Your task to perform on an android device: Open the phone app and click the voicemail tab. Image 0: 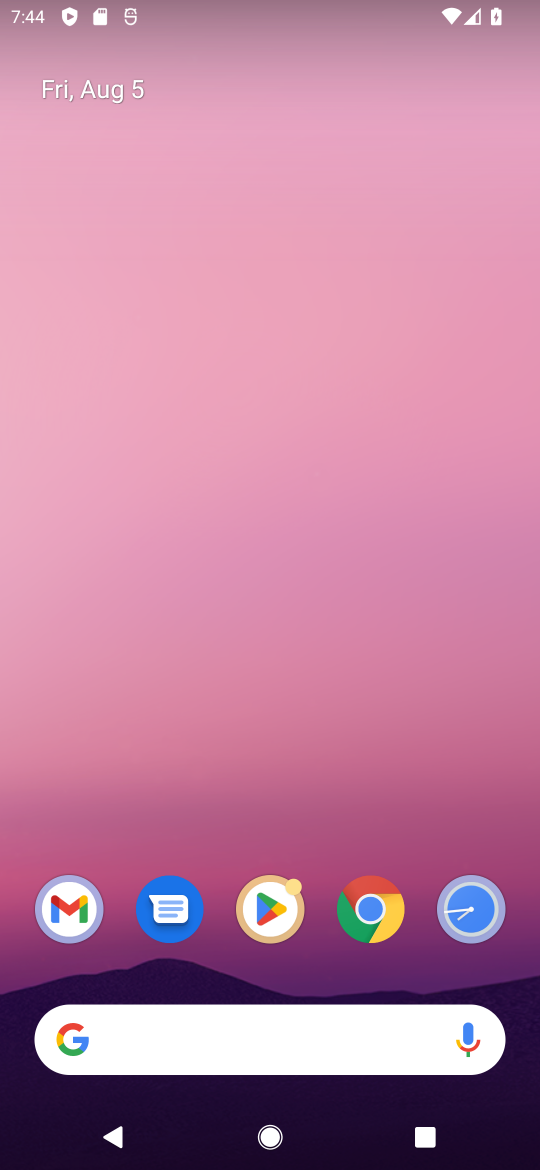
Step 0: drag from (345, 782) to (252, 29)
Your task to perform on an android device: Open the phone app and click the voicemail tab. Image 1: 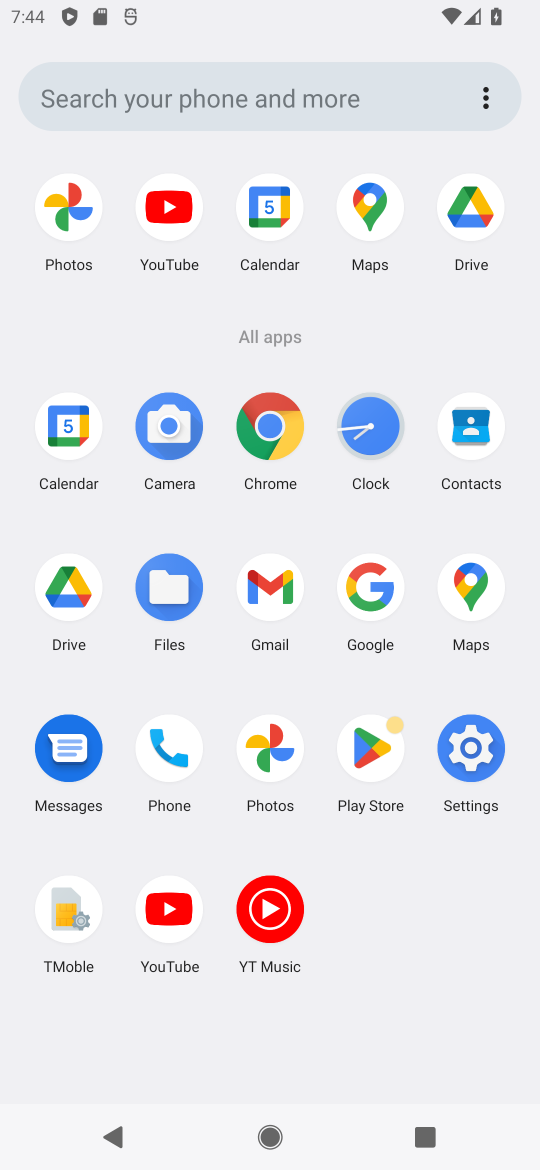
Step 1: click (172, 751)
Your task to perform on an android device: Open the phone app and click the voicemail tab. Image 2: 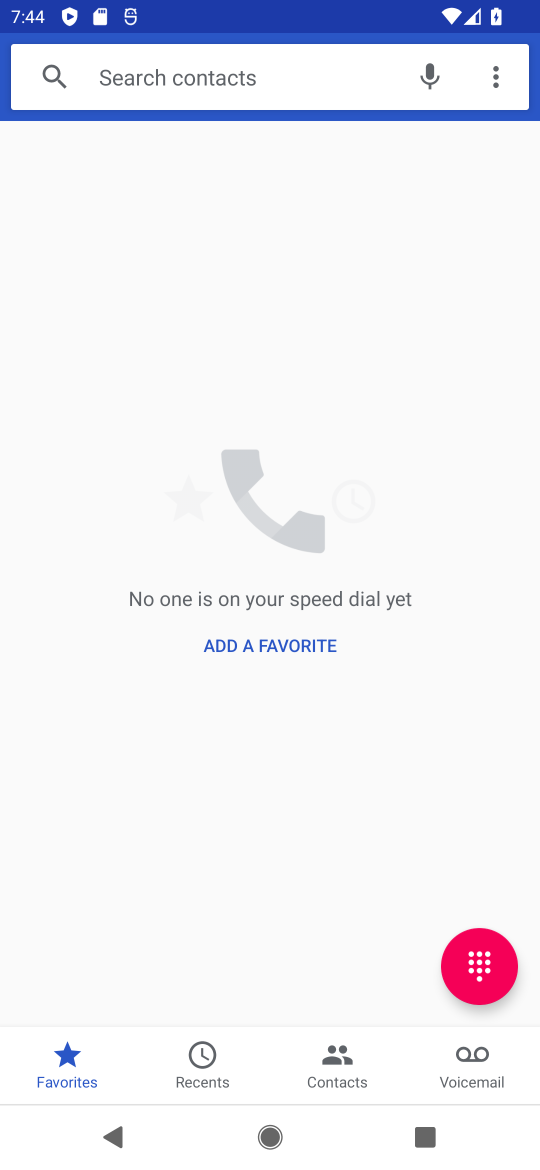
Step 2: click (463, 1071)
Your task to perform on an android device: Open the phone app and click the voicemail tab. Image 3: 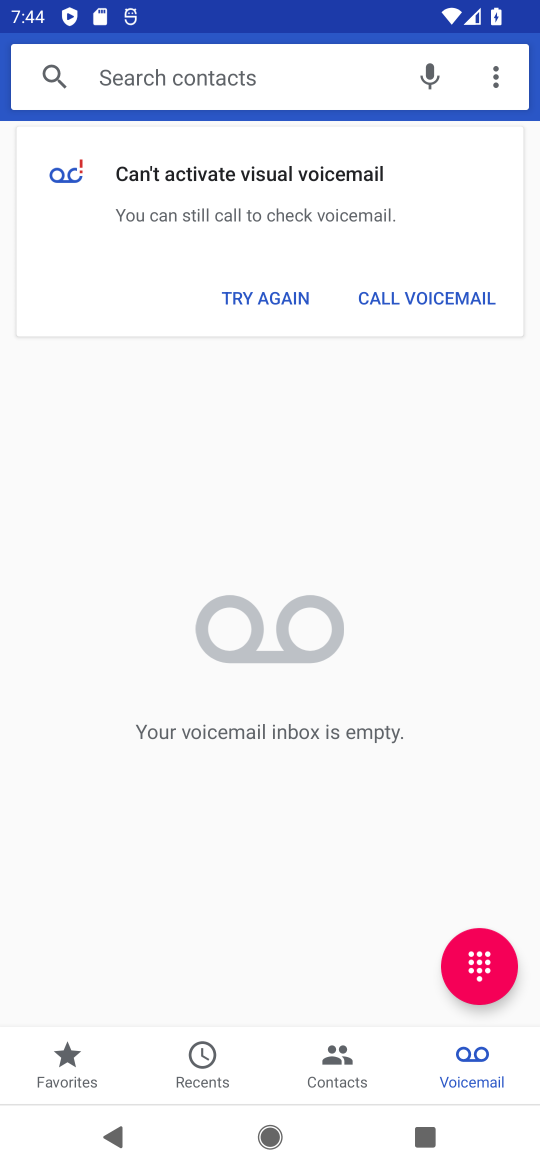
Step 3: task complete